Your task to perform on an android device: What's on my calendar tomorrow? Image 0: 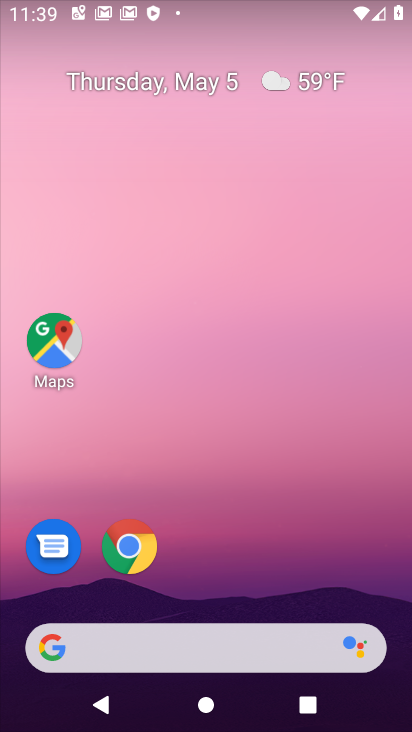
Step 0: click (134, 89)
Your task to perform on an android device: What's on my calendar tomorrow? Image 1: 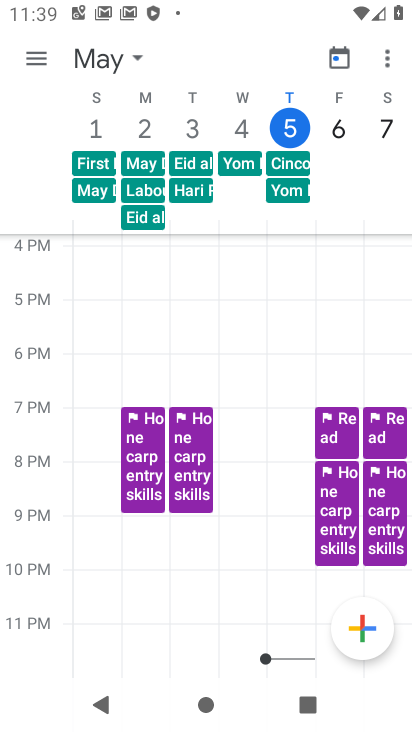
Step 1: click (43, 63)
Your task to perform on an android device: What's on my calendar tomorrow? Image 2: 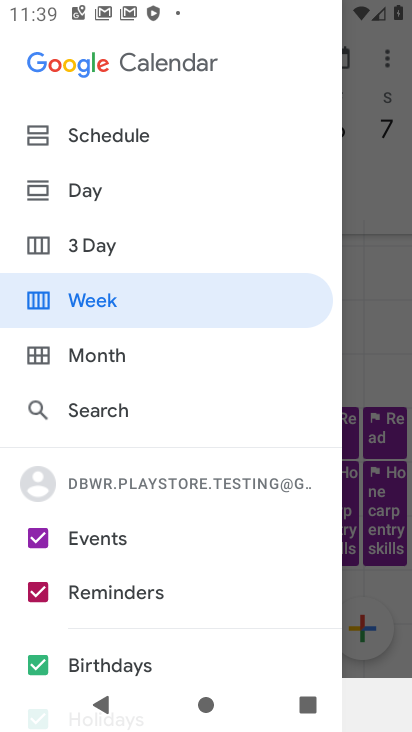
Step 2: click (105, 142)
Your task to perform on an android device: What's on my calendar tomorrow? Image 3: 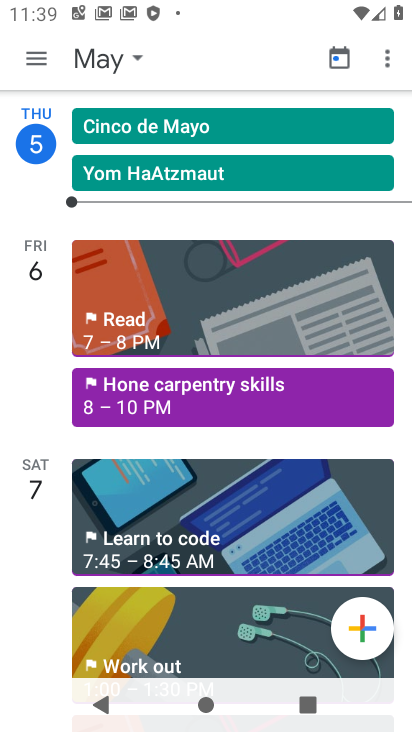
Step 3: click (26, 496)
Your task to perform on an android device: What's on my calendar tomorrow? Image 4: 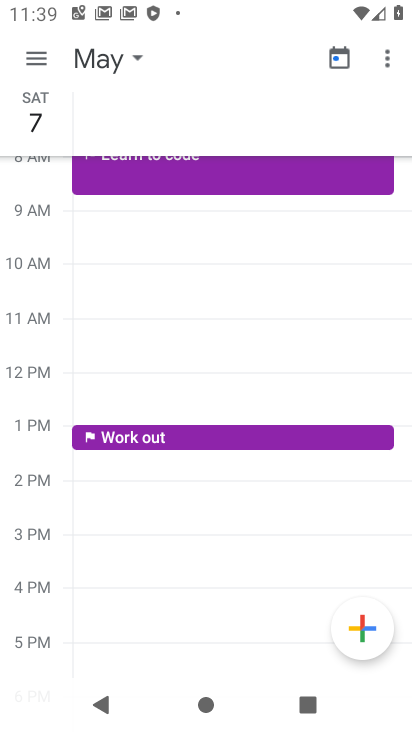
Step 4: task complete